Your task to perform on an android device: show emergency info Image 0: 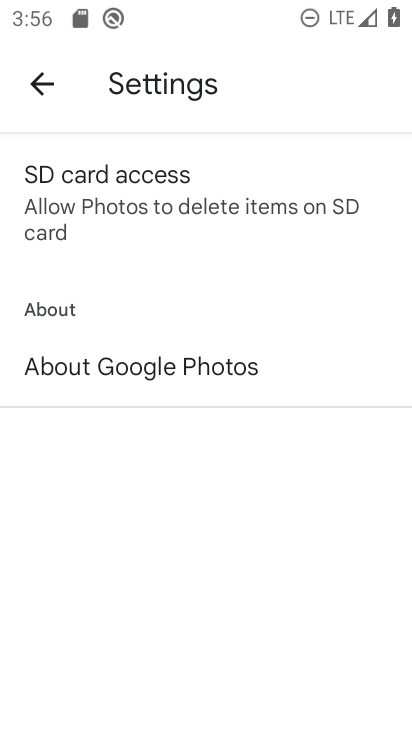
Step 0: press home button
Your task to perform on an android device: show emergency info Image 1: 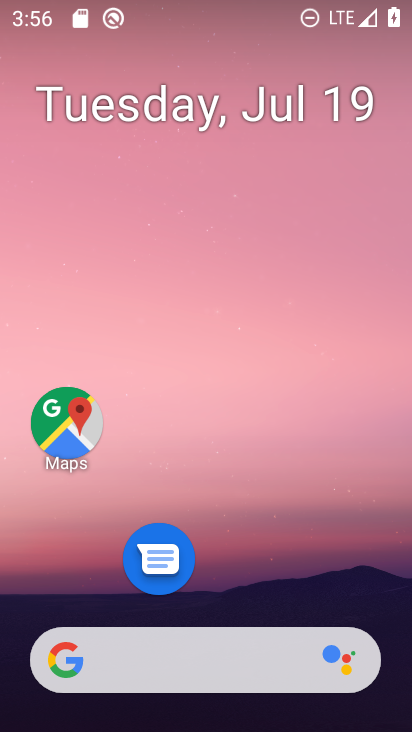
Step 1: drag from (201, 670) to (229, 207)
Your task to perform on an android device: show emergency info Image 2: 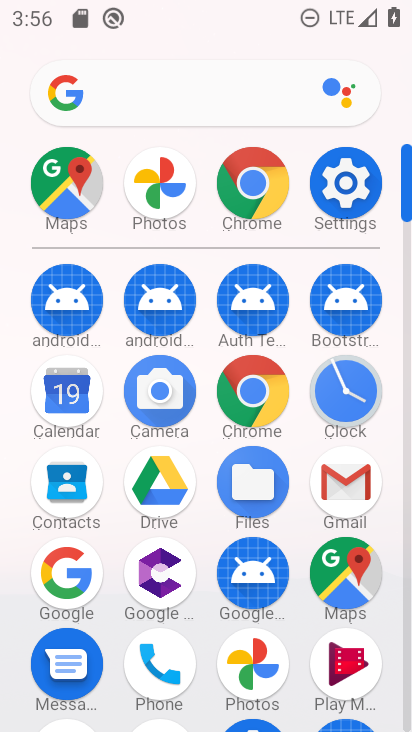
Step 2: click (335, 213)
Your task to perform on an android device: show emergency info Image 3: 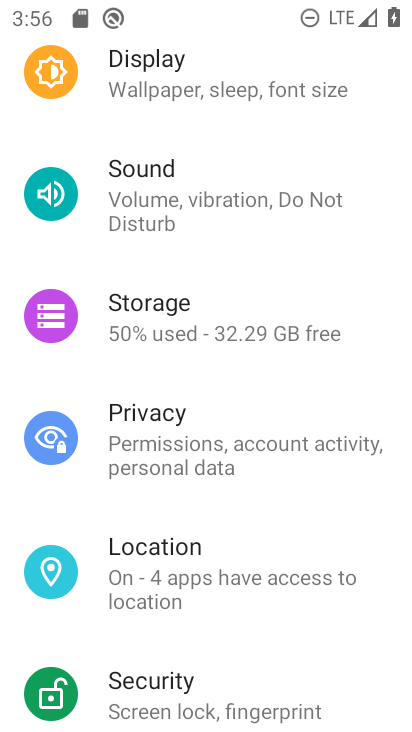
Step 3: drag from (175, 524) to (177, 278)
Your task to perform on an android device: show emergency info Image 4: 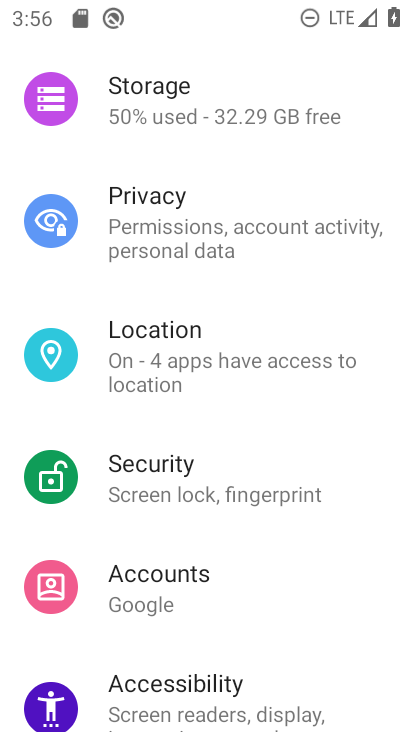
Step 4: drag from (158, 555) to (245, 178)
Your task to perform on an android device: show emergency info Image 5: 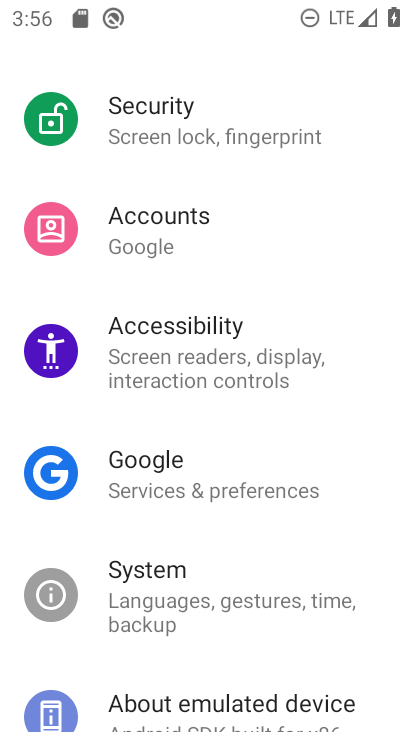
Step 5: drag from (200, 666) to (245, 252)
Your task to perform on an android device: show emergency info Image 6: 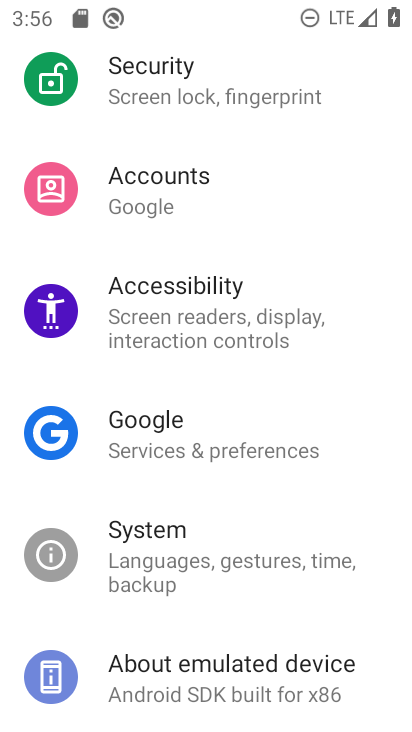
Step 6: click (200, 675)
Your task to perform on an android device: show emergency info Image 7: 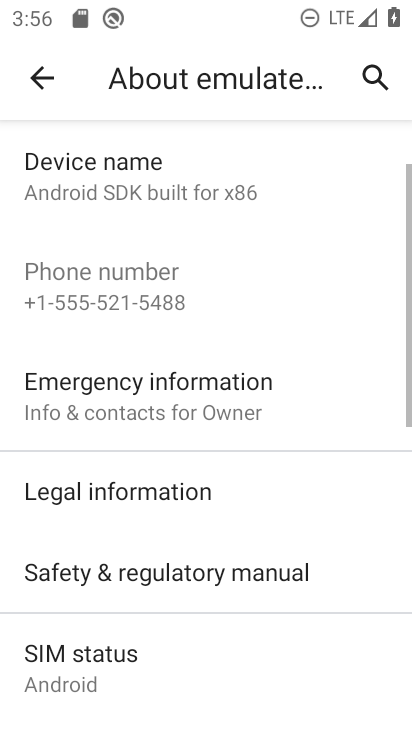
Step 7: click (177, 409)
Your task to perform on an android device: show emergency info Image 8: 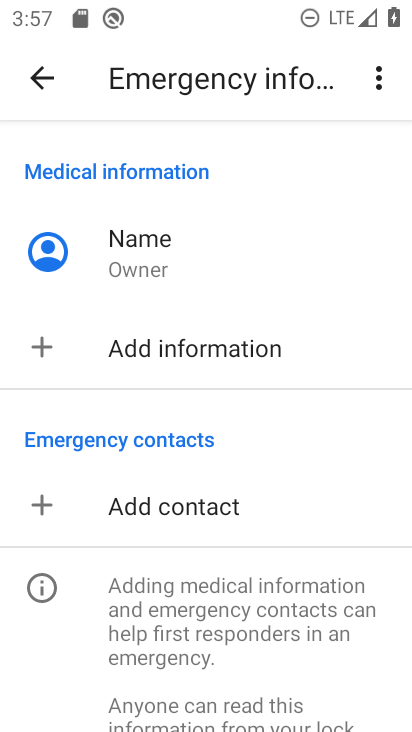
Step 8: task complete